Your task to perform on an android device: Clear all items from cart on newegg.com. Image 0: 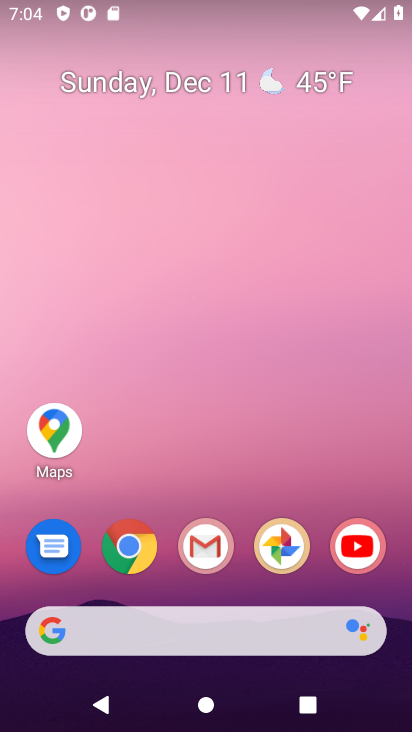
Step 0: click (131, 548)
Your task to perform on an android device: Clear all items from cart on newegg.com. Image 1: 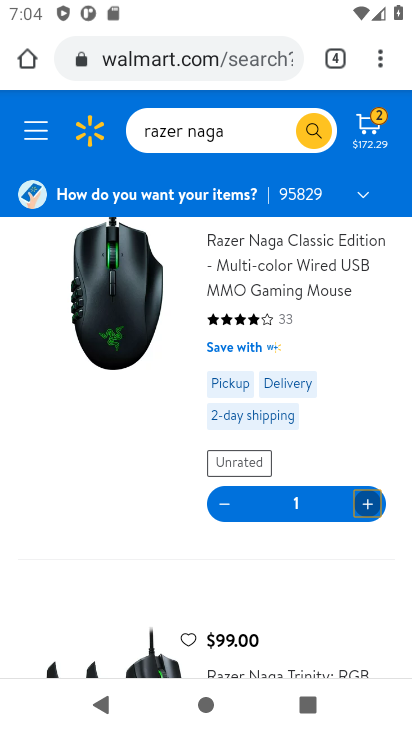
Step 1: click (208, 63)
Your task to perform on an android device: Clear all items from cart on newegg.com. Image 2: 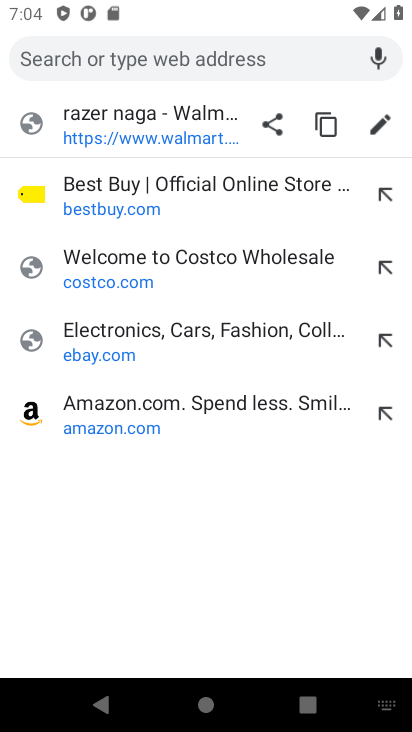
Step 2: type "newegg.com"
Your task to perform on an android device: Clear all items from cart on newegg.com. Image 3: 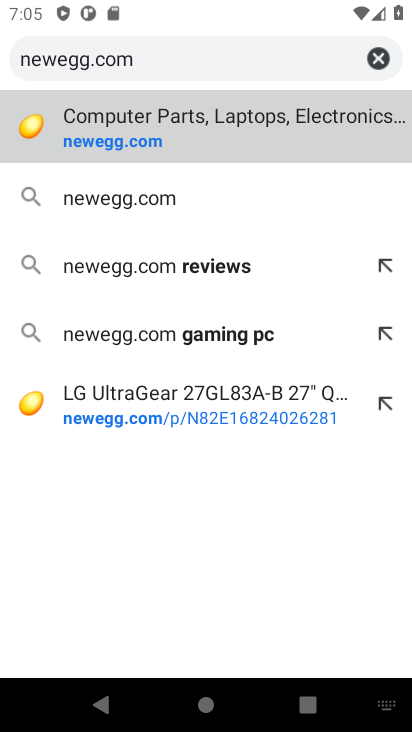
Step 3: click (129, 142)
Your task to perform on an android device: Clear all items from cart on newegg.com. Image 4: 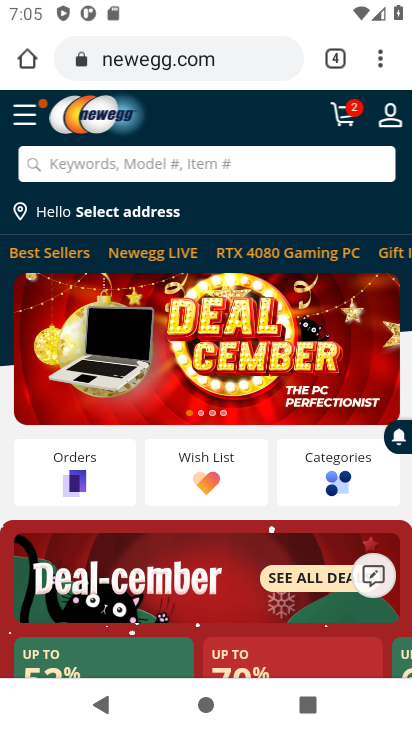
Step 4: click (348, 117)
Your task to perform on an android device: Clear all items from cart on newegg.com. Image 5: 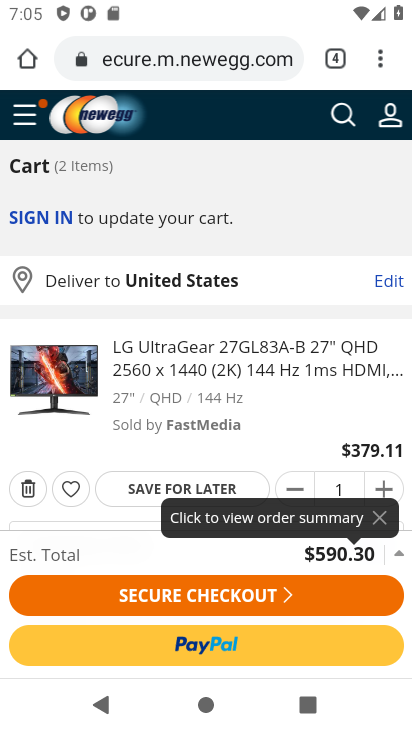
Step 5: click (30, 490)
Your task to perform on an android device: Clear all items from cart on newegg.com. Image 6: 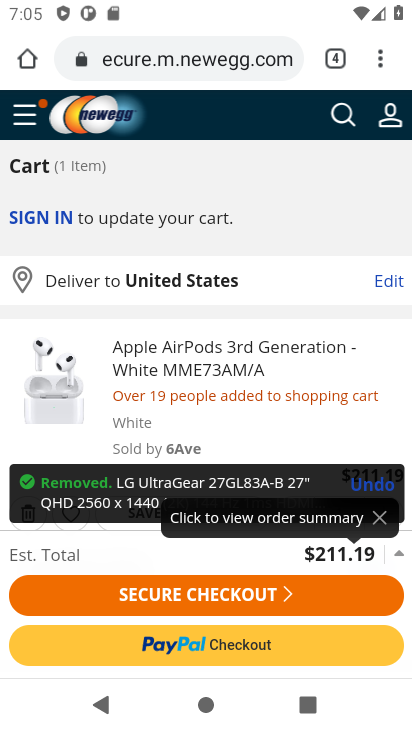
Step 6: drag from (220, 425) to (225, 236)
Your task to perform on an android device: Clear all items from cart on newegg.com. Image 7: 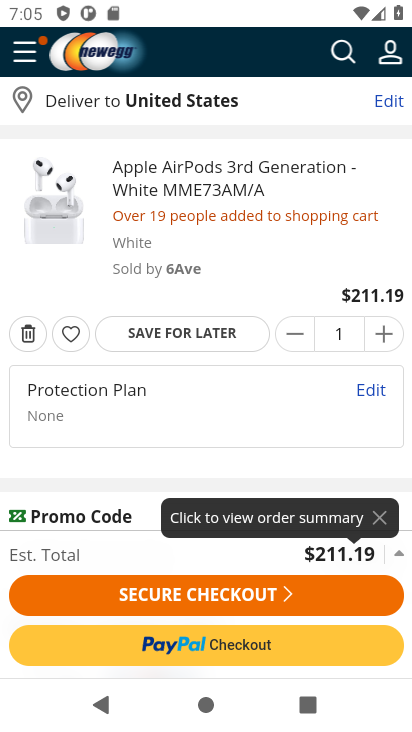
Step 7: click (27, 336)
Your task to perform on an android device: Clear all items from cart on newegg.com. Image 8: 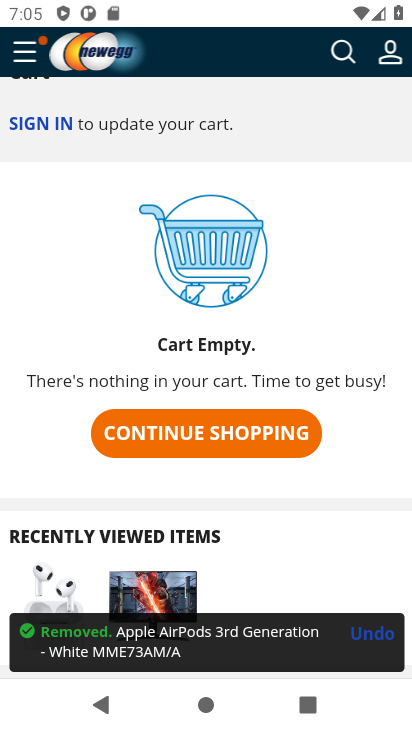
Step 8: task complete